Your task to perform on an android device: change your default location settings in chrome Image 0: 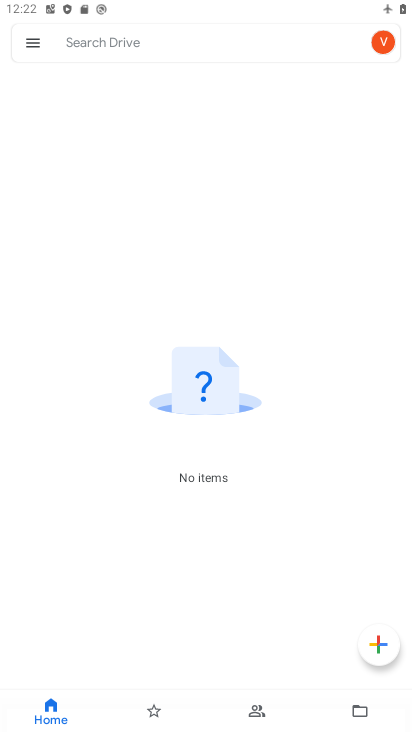
Step 0: press home button
Your task to perform on an android device: change your default location settings in chrome Image 1: 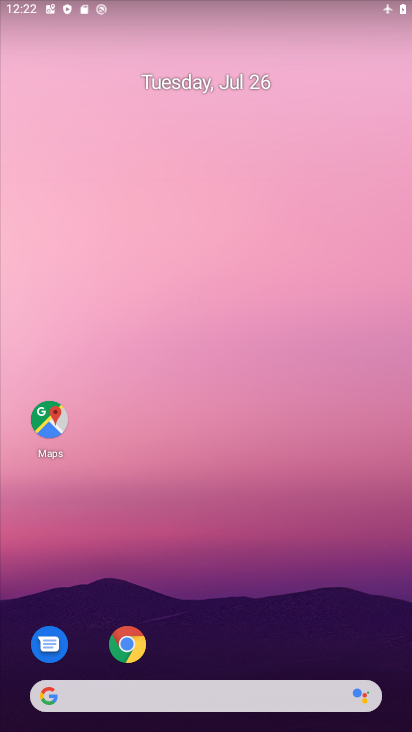
Step 1: drag from (240, 604) to (237, 139)
Your task to perform on an android device: change your default location settings in chrome Image 2: 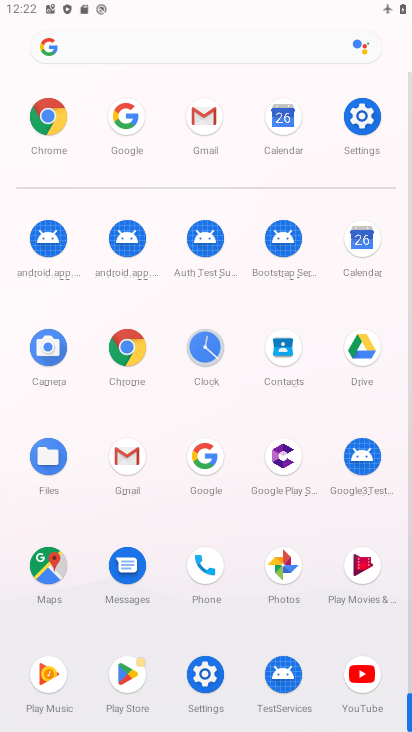
Step 2: click (130, 387)
Your task to perform on an android device: change your default location settings in chrome Image 3: 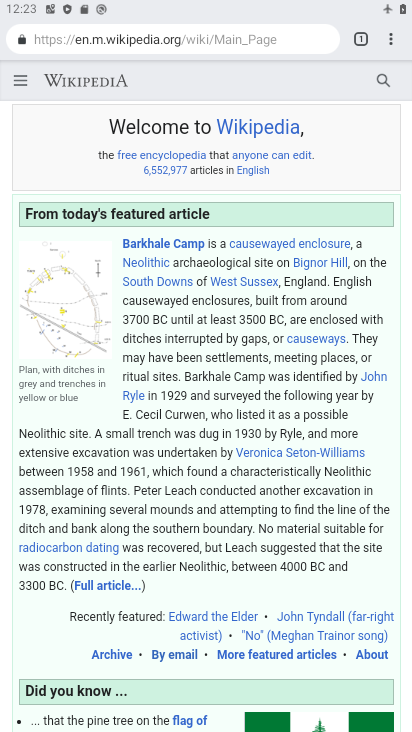
Step 3: click (390, 45)
Your task to perform on an android device: change your default location settings in chrome Image 4: 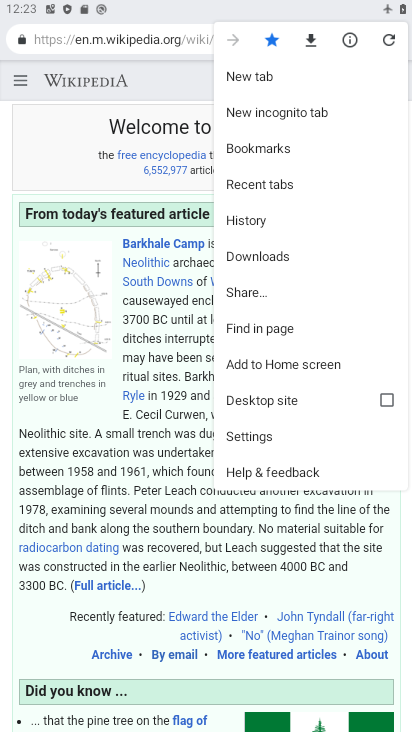
Step 4: click (230, 445)
Your task to perform on an android device: change your default location settings in chrome Image 5: 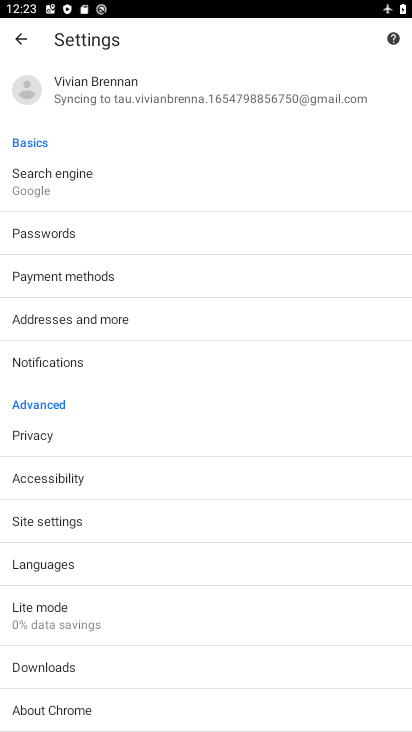
Step 5: click (38, 518)
Your task to perform on an android device: change your default location settings in chrome Image 6: 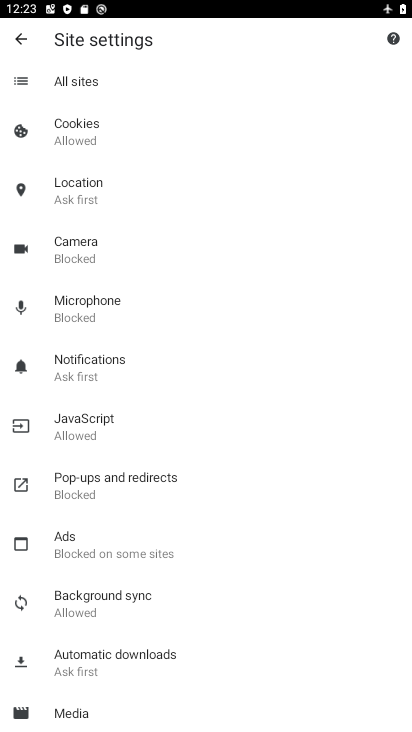
Step 6: click (77, 188)
Your task to perform on an android device: change your default location settings in chrome Image 7: 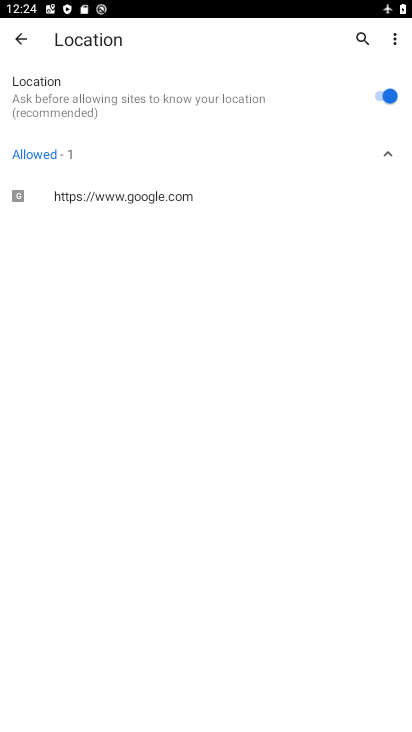
Step 7: click (375, 96)
Your task to perform on an android device: change your default location settings in chrome Image 8: 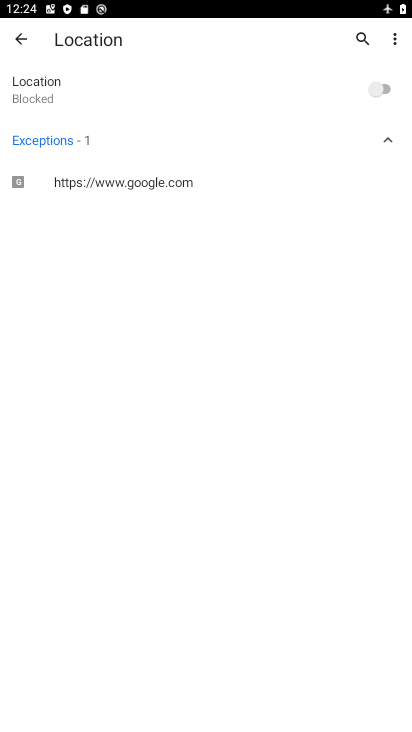
Step 8: task complete